Your task to perform on an android device: refresh tabs in the chrome app Image 0: 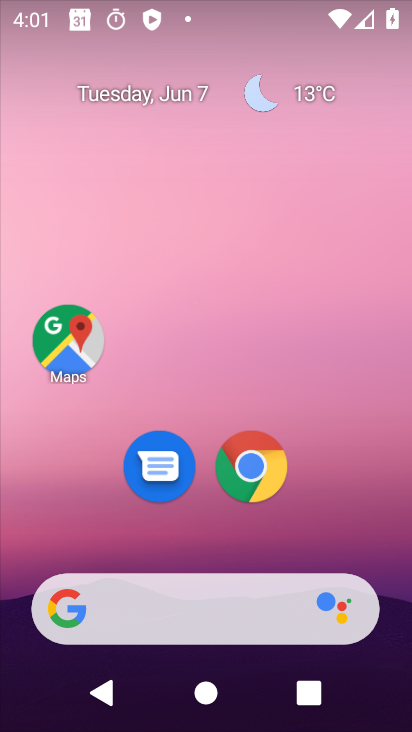
Step 0: click (271, 460)
Your task to perform on an android device: refresh tabs in the chrome app Image 1: 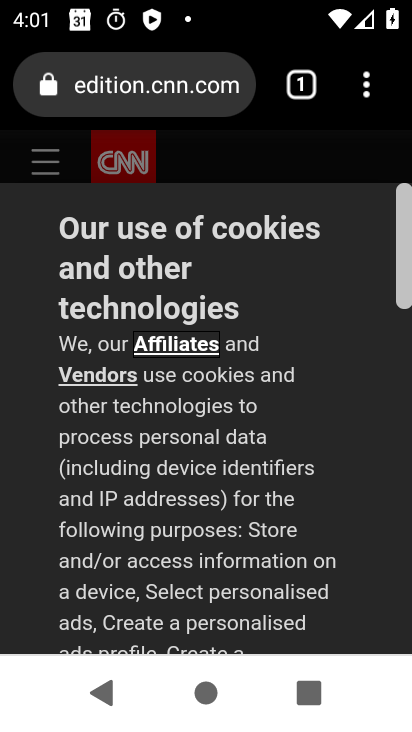
Step 1: click (388, 74)
Your task to perform on an android device: refresh tabs in the chrome app Image 2: 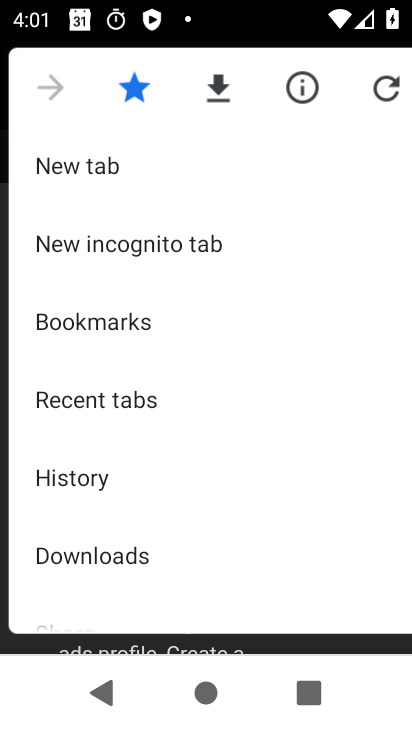
Step 2: click (380, 79)
Your task to perform on an android device: refresh tabs in the chrome app Image 3: 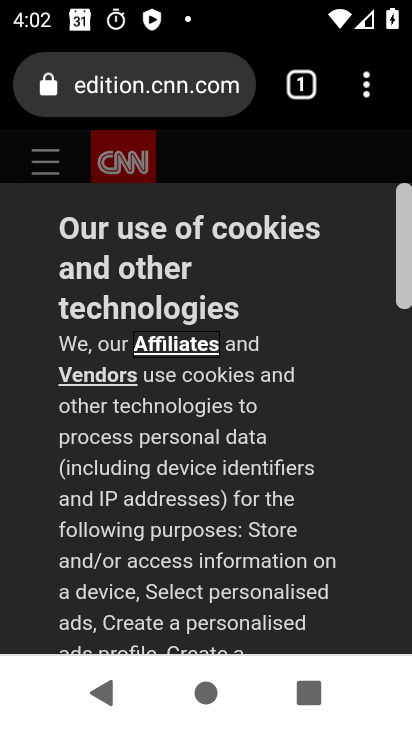
Step 3: task complete